Your task to perform on an android device: turn off smart reply in the gmail app Image 0: 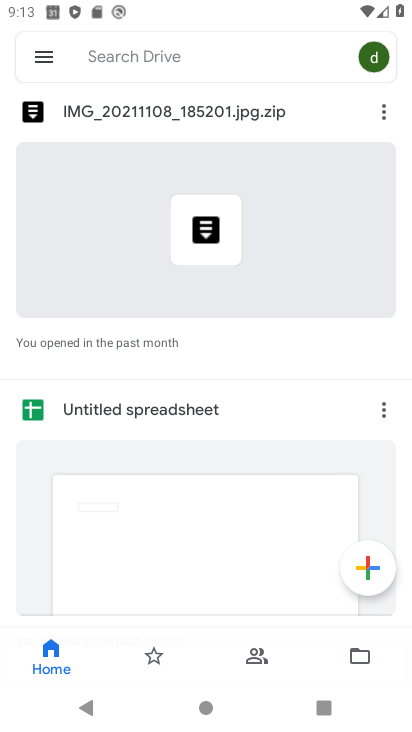
Step 0: press home button
Your task to perform on an android device: turn off smart reply in the gmail app Image 1: 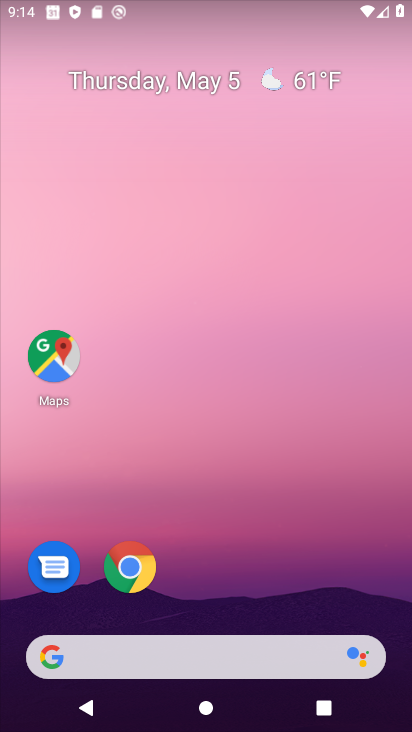
Step 1: drag from (235, 724) to (238, 213)
Your task to perform on an android device: turn off smart reply in the gmail app Image 2: 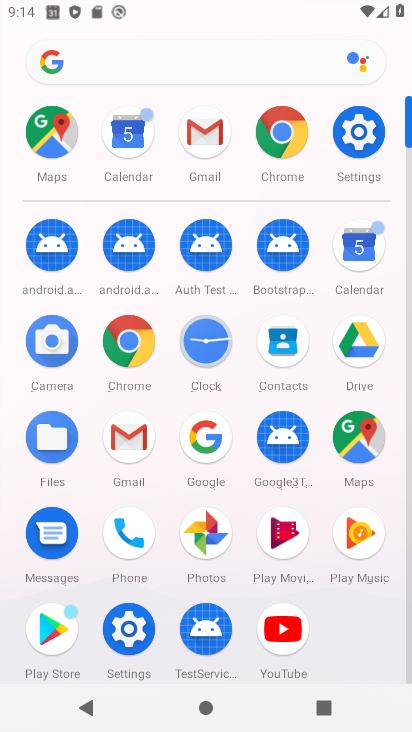
Step 2: click (204, 135)
Your task to perform on an android device: turn off smart reply in the gmail app Image 3: 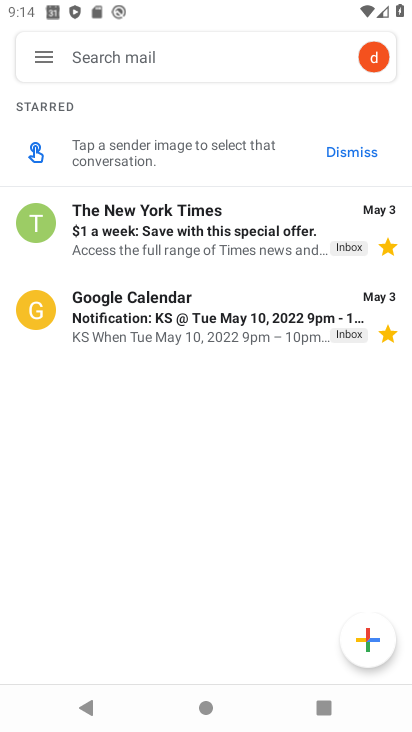
Step 3: click (38, 56)
Your task to perform on an android device: turn off smart reply in the gmail app Image 4: 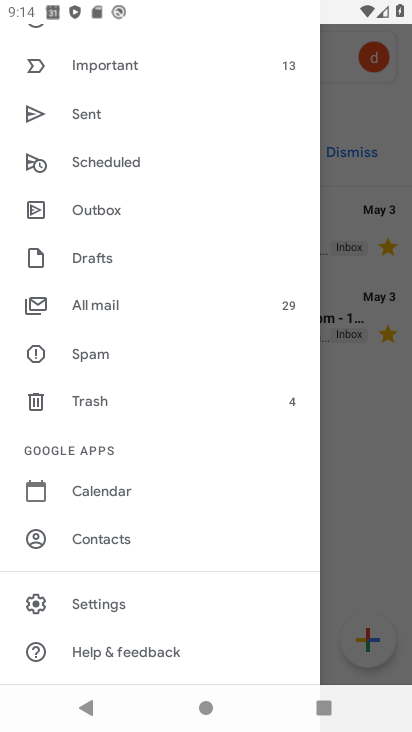
Step 4: click (88, 608)
Your task to perform on an android device: turn off smart reply in the gmail app Image 5: 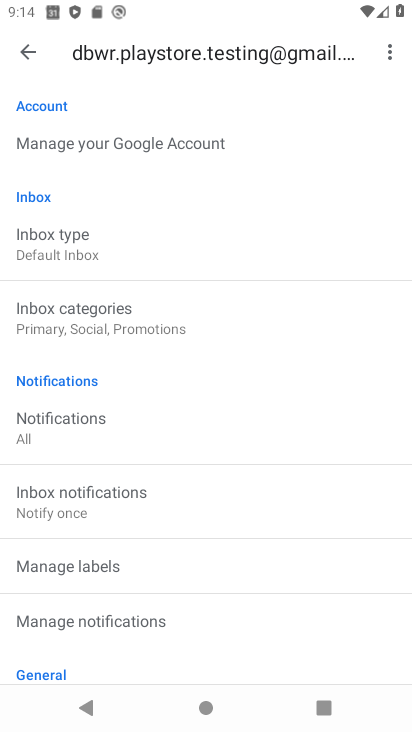
Step 5: drag from (121, 654) to (127, 255)
Your task to perform on an android device: turn off smart reply in the gmail app Image 6: 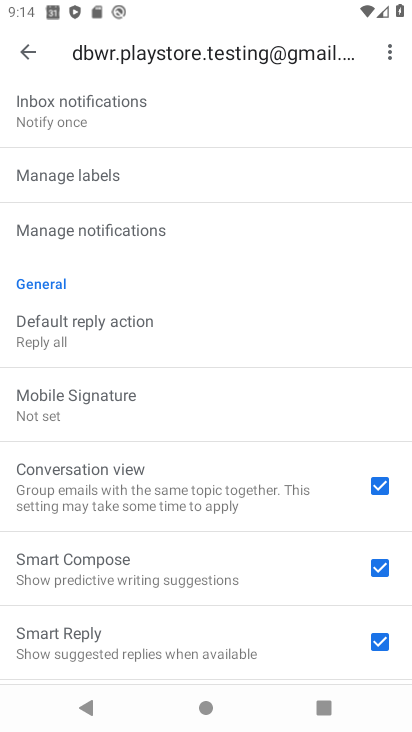
Step 6: click (376, 645)
Your task to perform on an android device: turn off smart reply in the gmail app Image 7: 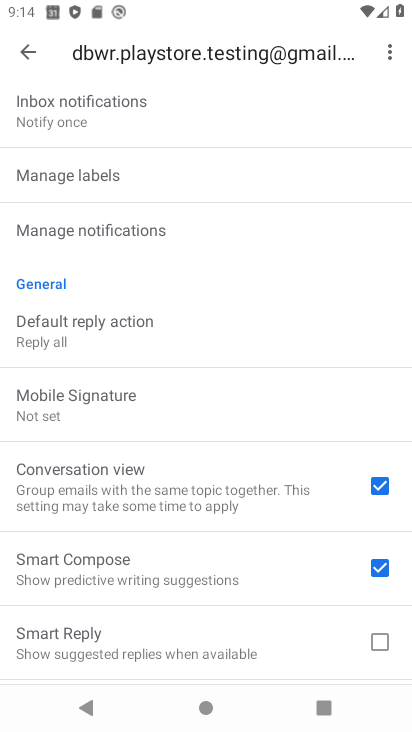
Step 7: task complete